Your task to perform on an android device: open device folders in google photos Image 0: 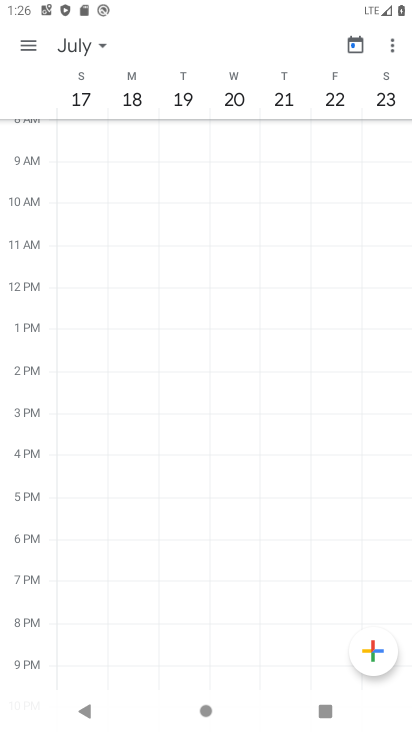
Step 0: press home button
Your task to perform on an android device: open device folders in google photos Image 1: 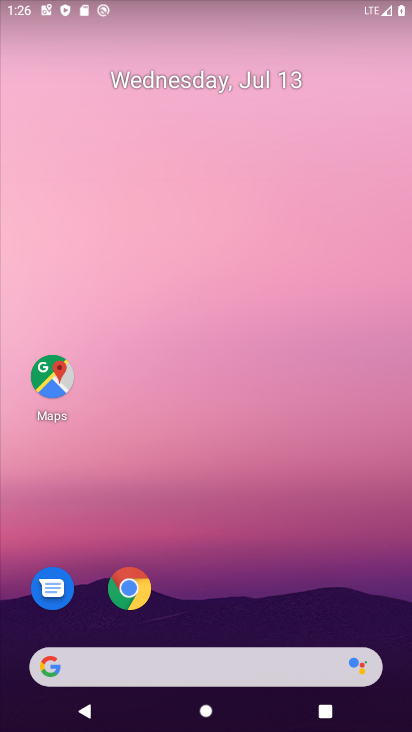
Step 1: drag from (383, 534) to (331, 99)
Your task to perform on an android device: open device folders in google photos Image 2: 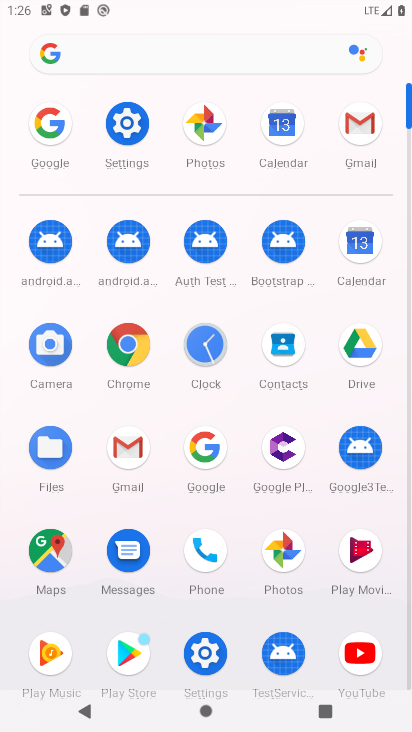
Step 2: click (279, 534)
Your task to perform on an android device: open device folders in google photos Image 3: 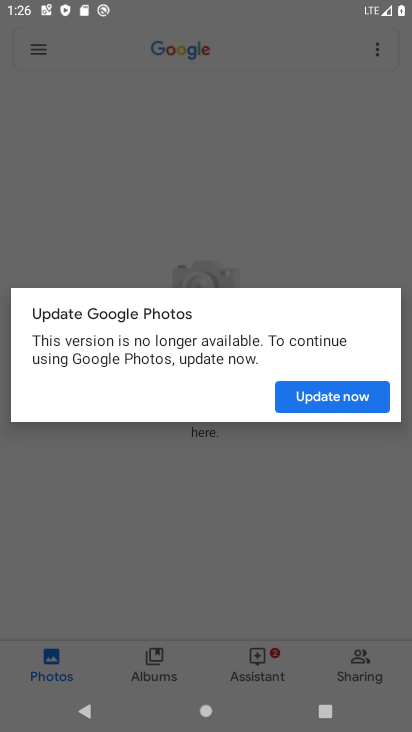
Step 3: click (354, 398)
Your task to perform on an android device: open device folders in google photos Image 4: 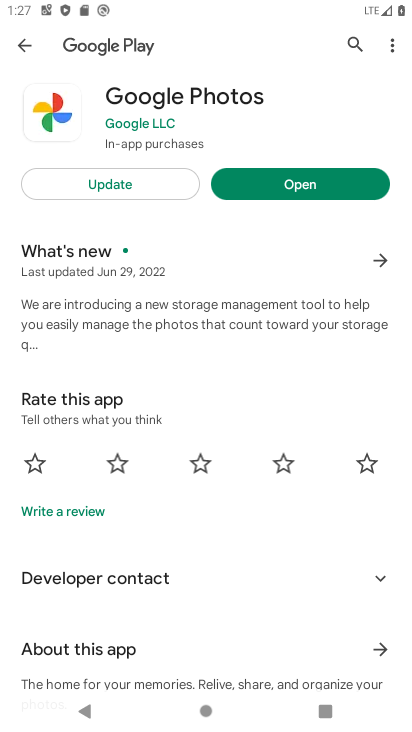
Step 4: click (290, 186)
Your task to perform on an android device: open device folders in google photos Image 5: 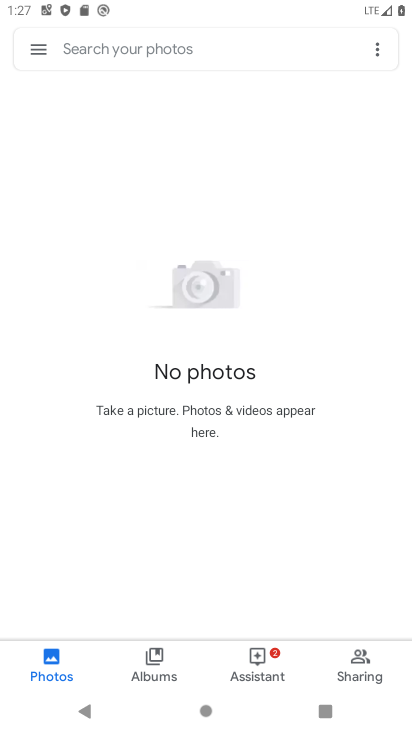
Step 5: click (37, 45)
Your task to perform on an android device: open device folders in google photos Image 6: 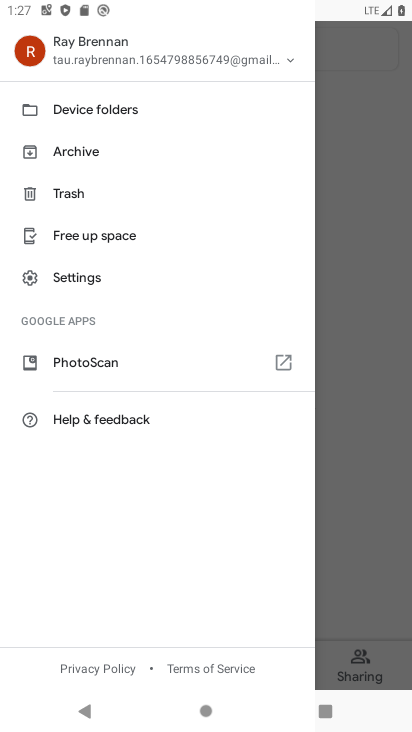
Step 6: click (80, 116)
Your task to perform on an android device: open device folders in google photos Image 7: 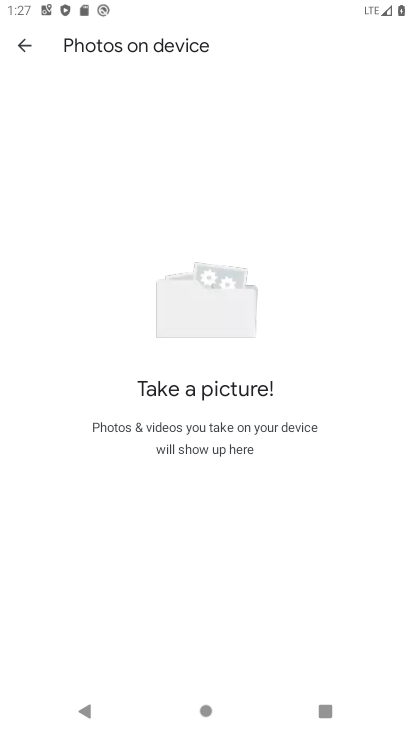
Step 7: task complete